Your task to perform on an android device: make emails show in primary in the gmail app Image 0: 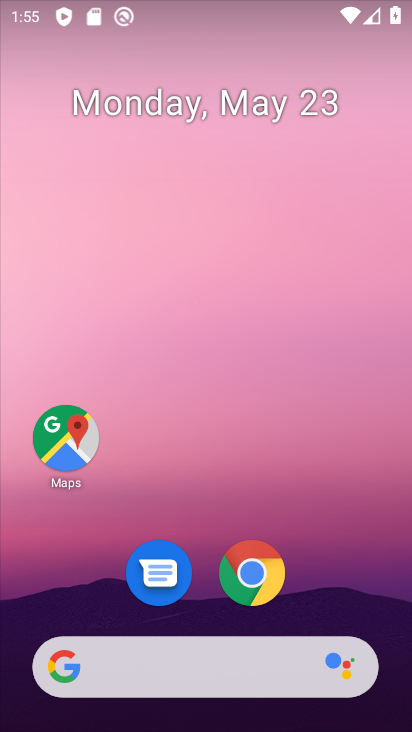
Step 0: click (286, 134)
Your task to perform on an android device: make emails show in primary in the gmail app Image 1: 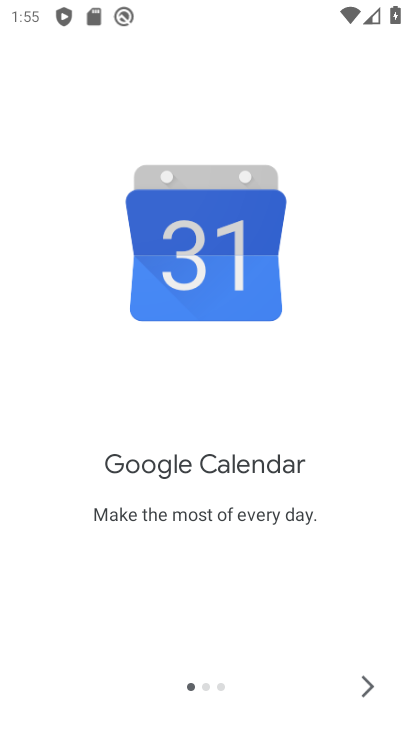
Step 1: press home button
Your task to perform on an android device: make emails show in primary in the gmail app Image 2: 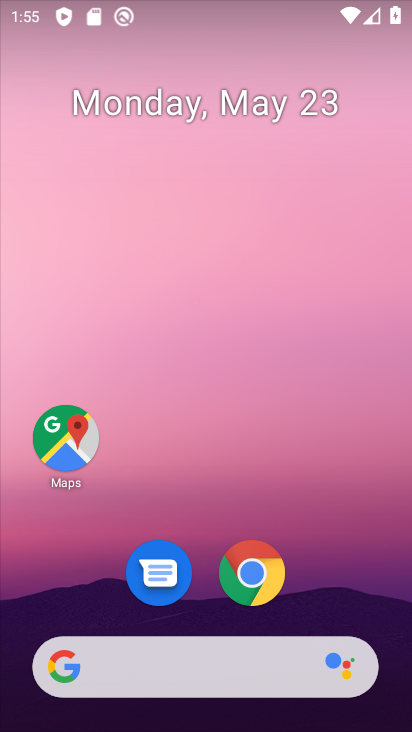
Step 2: drag from (336, 602) to (314, 118)
Your task to perform on an android device: make emails show in primary in the gmail app Image 3: 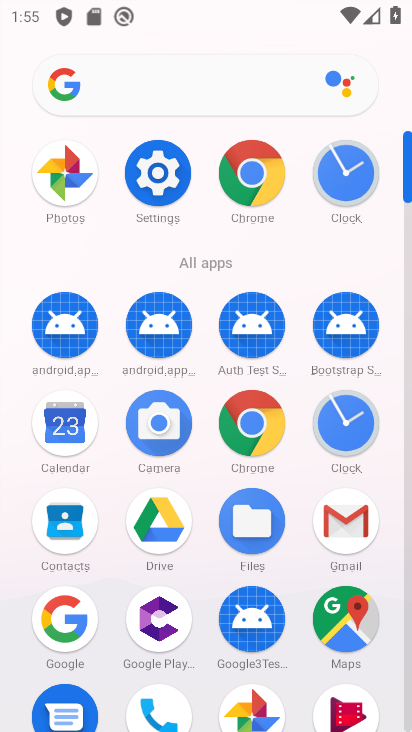
Step 3: click (357, 516)
Your task to perform on an android device: make emails show in primary in the gmail app Image 4: 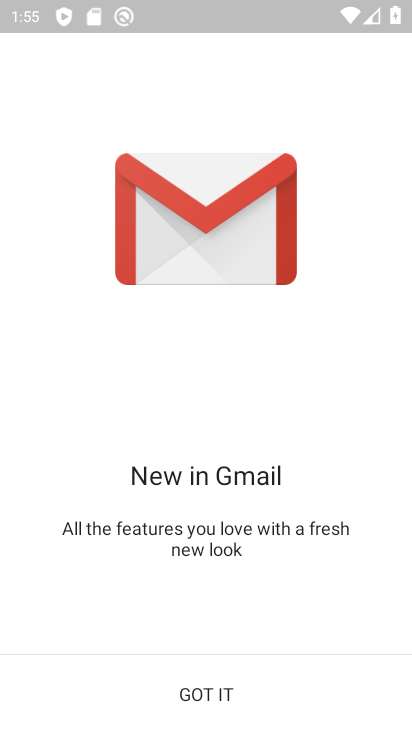
Step 4: click (226, 697)
Your task to perform on an android device: make emails show in primary in the gmail app Image 5: 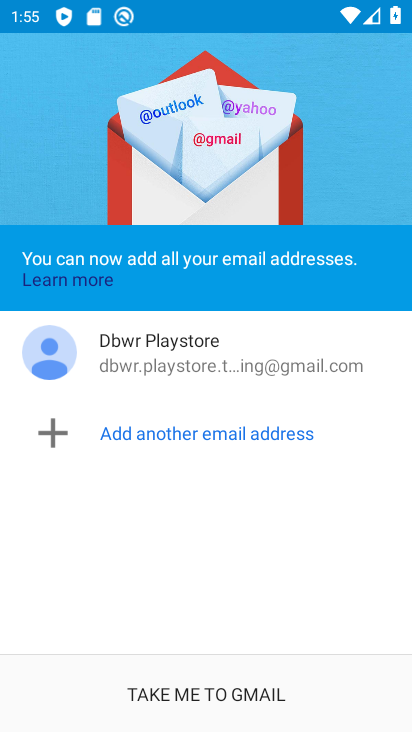
Step 5: click (227, 684)
Your task to perform on an android device: make emails show in primary in the gmail app Image 6: 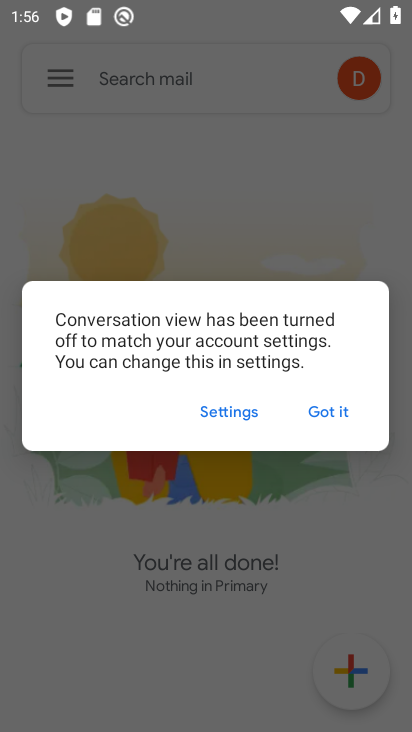
Step 6: click (317, 410)
Your task to perform on an android device: make emails show in primary in the gmail app Image 7: 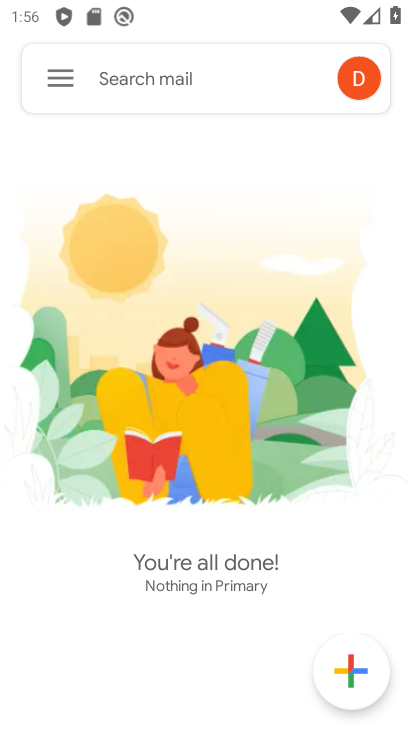
Step 7: click (79, 85)
Your task to perform on an android device: make emails show in primary in the gmail app Image 8: 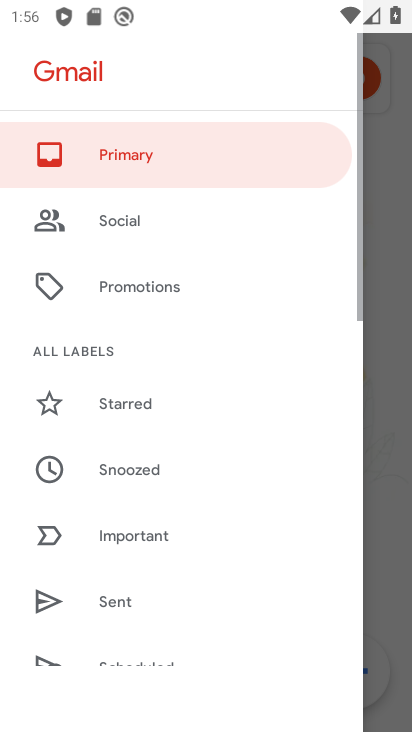
Step 8: drag from (128, 584) to (239, 102)
Your task to perform on an android device: make emails show in primary in the gmail app Image 9: 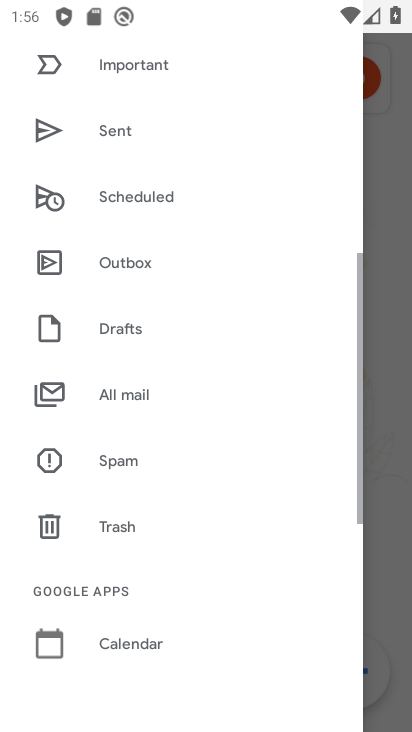
Step 9: drag from (128, 639) to (174, 312)
Your task to perform on an android device: make emails show in primary in the gmail app Image 10: 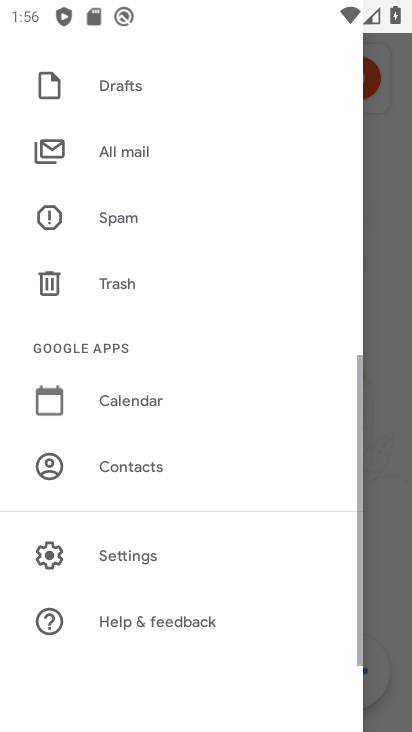
Step 10: click (140, 552)
Your task to perform on an android device: make emails show in primary in the gmail app Image 11: 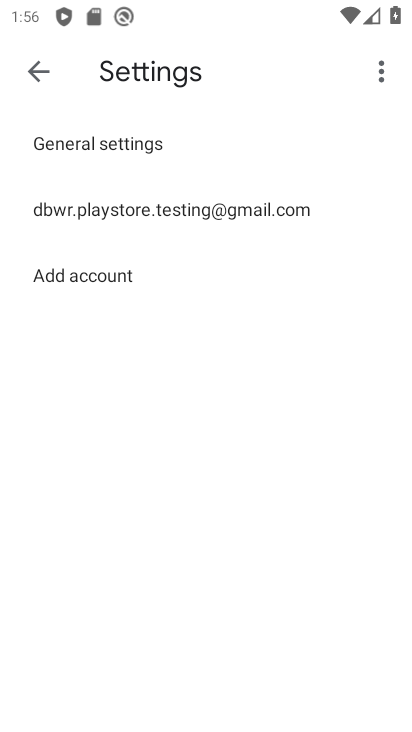
Step 11: click (242, 209)
Your task to perform on an android device: make emails show in primary in the gmail app Image 12: 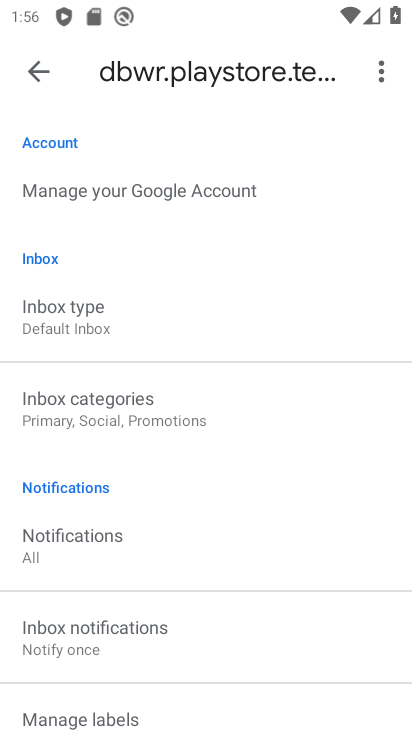
Step 12: click (106, 436)
Your task to perform on an android device: make emails show in primary in the gmail app Image 13: 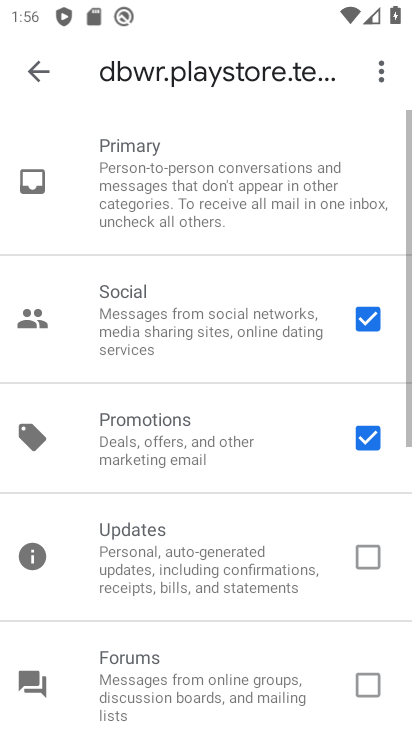
Step 13: task complete